Your task to perform on an android device: move an email to a new category in the gmail app Image 0: 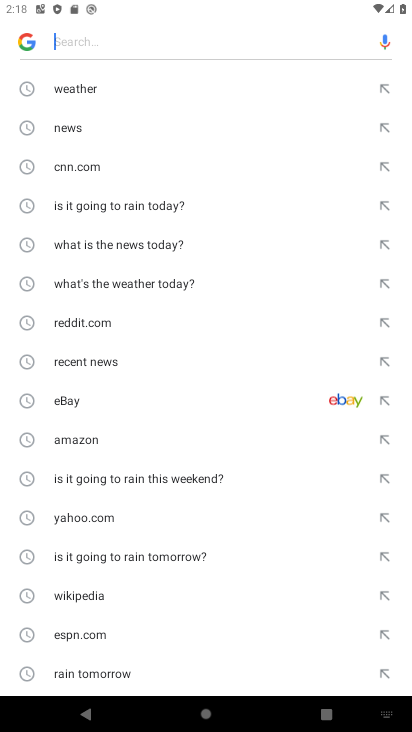
Step 0: press home button
Your task to perform on an android device: move an email to a new category in the gmail app Image 1: 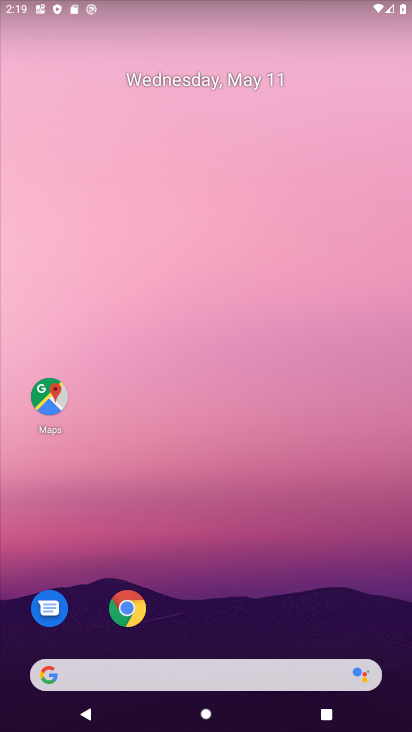
Step 1: drag from (267, 608) to (248, 203)
Your task to perform on an android device: move an email to a new category in the gmail app Image 2: 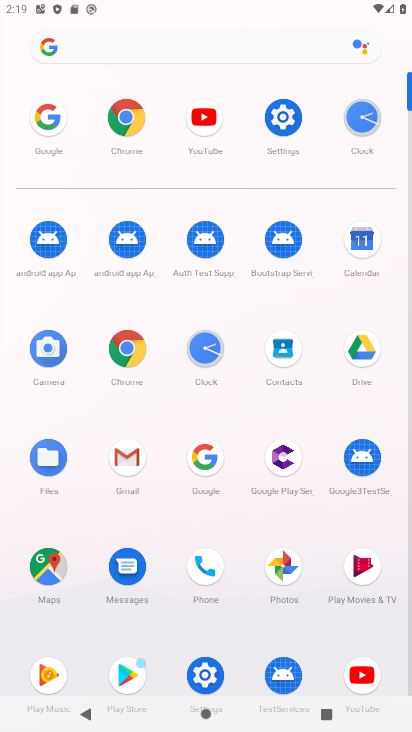
Step 2: click (129, 457)
Your task to perform on an android device: move an email to a new category in the gmail app Image 3: 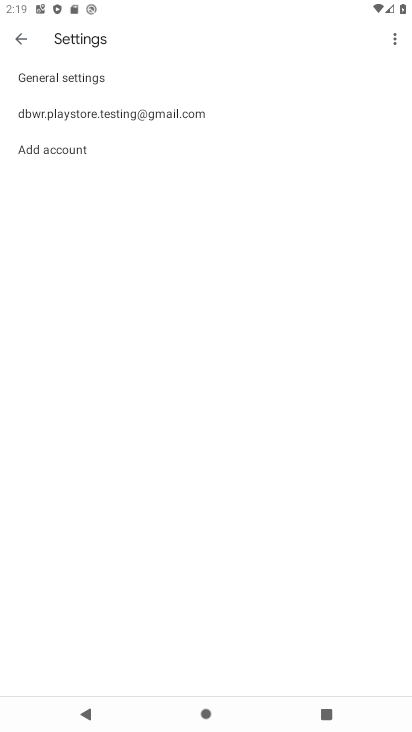
Step 3: click (17, 41)
Your task to perform on an android device: move an email to a new category in the gmail app Image 4: 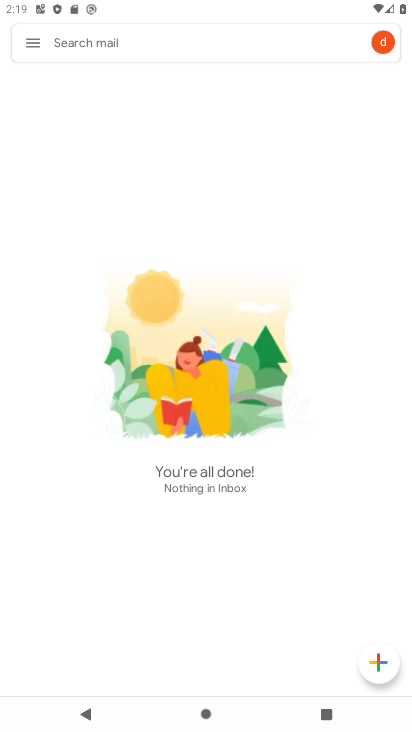
Step 4: click (28, 43)
Your task to perform on an android device: move an email to a new category in the gmail app Image 5: 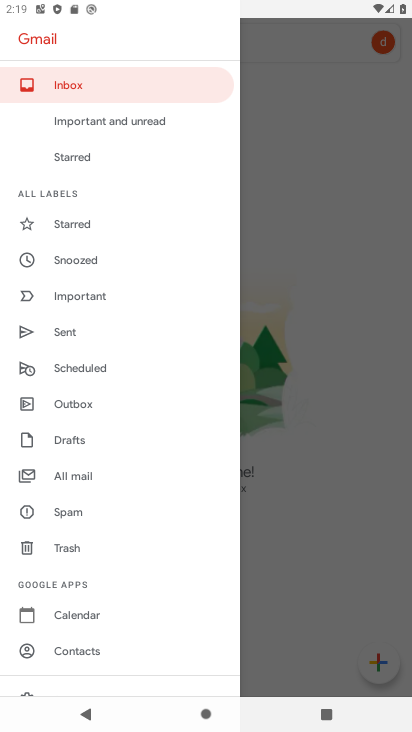
Step 5: click (84, 473)
Your task to perform on an android device: move an email to a new category in the gmail app Image 6: 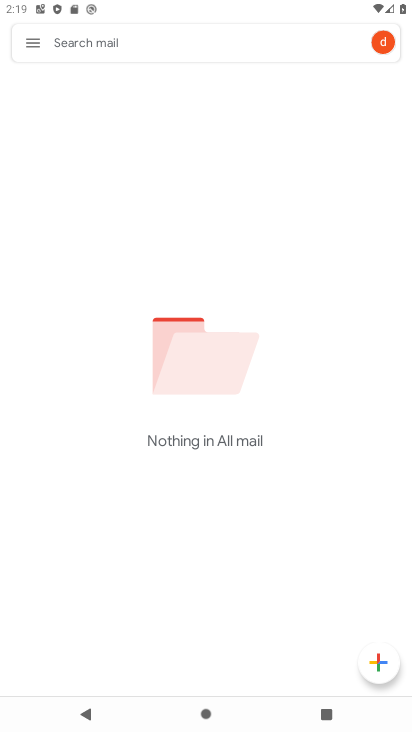
Step 6: task complete